Your task to perform on an android device: Open Youtube and go to the subscriptions tab Image 0: 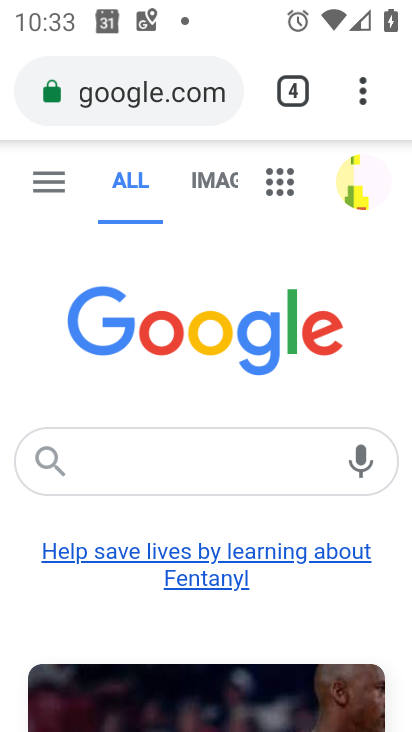
Step 0: press home button
Your task to perform on an android device: Open Youtube and go to the subscriptions tab Image 1: 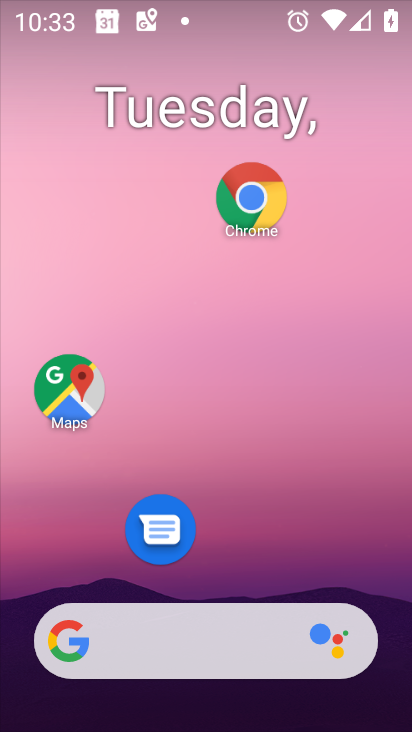
Step 1: drag from (307, 545) to (325, 262)
Your task to perform on an android device: Open Youtube and go to the subscriptions tab Image 2: 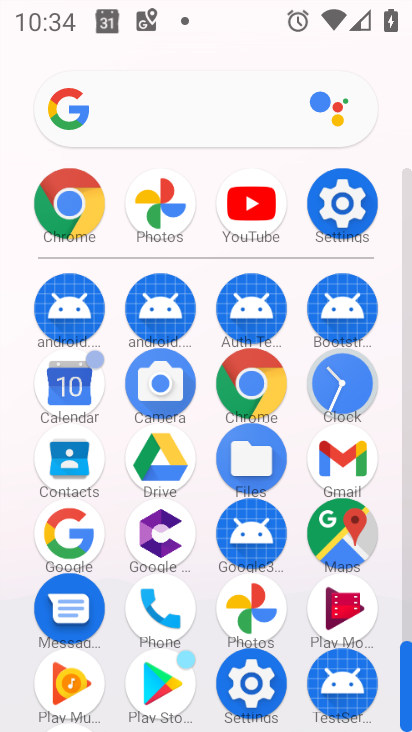
Step 2: click (247, 228)
Your task to perform on an android device: Open Youtube and go to the subscriptions tab Image 3: 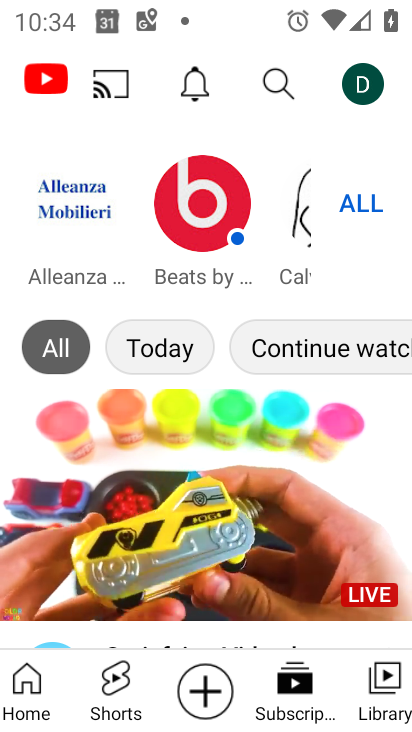
Step 3: task complete